Your task to perform on an android device: change the clock display to digital Image 0: 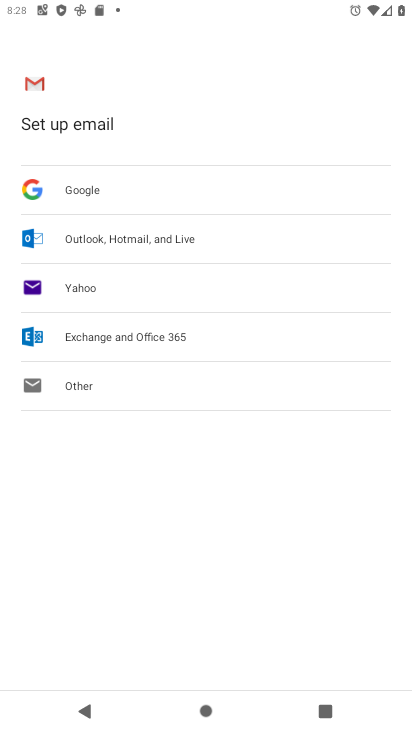
Step 0: press home button
Your task to perform on an android device: change the clock display to digital Image 1: 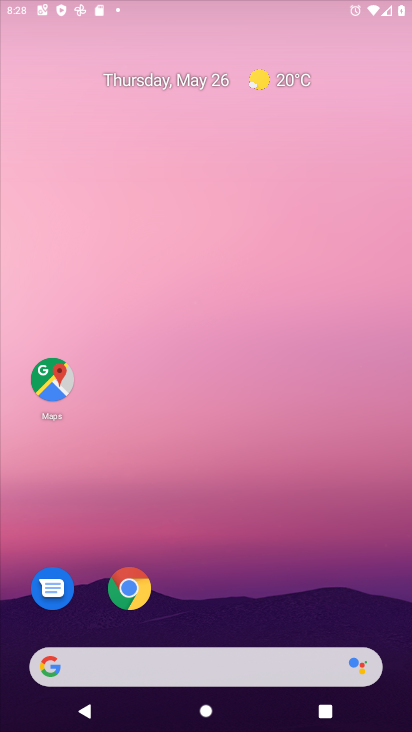
Step 1: drag from (401, 663) to (279, 35)
Your task to perform on an android device: change the clock display to digital Image 2: 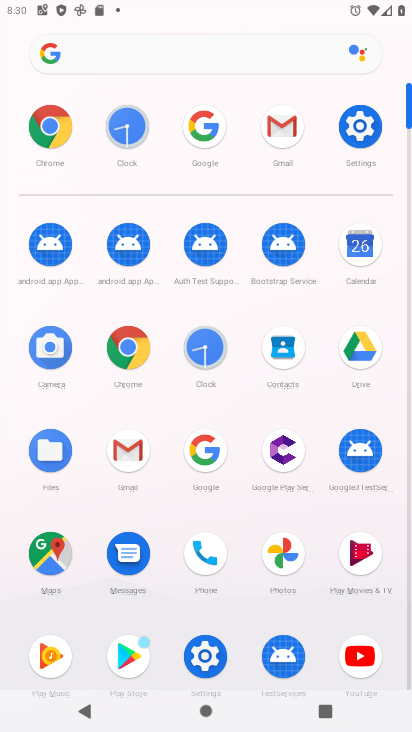
Step 2: click (211, 355)
Your task to perform on an android device: change the clock display to digital Image 3: 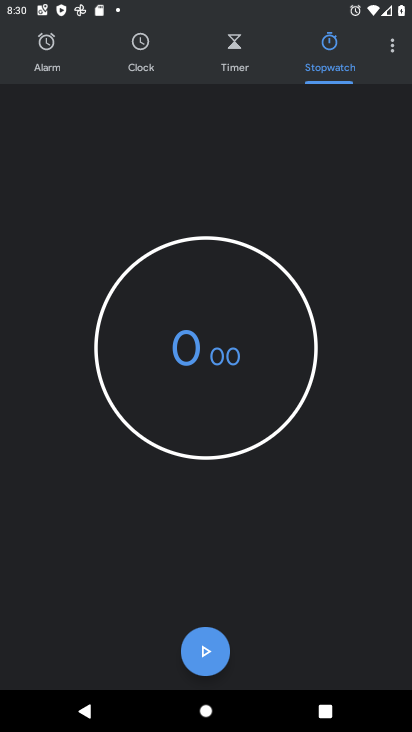
Step 3: click (409, 57)
Your task to perform on an android device: change the clock display to digital Image 4: 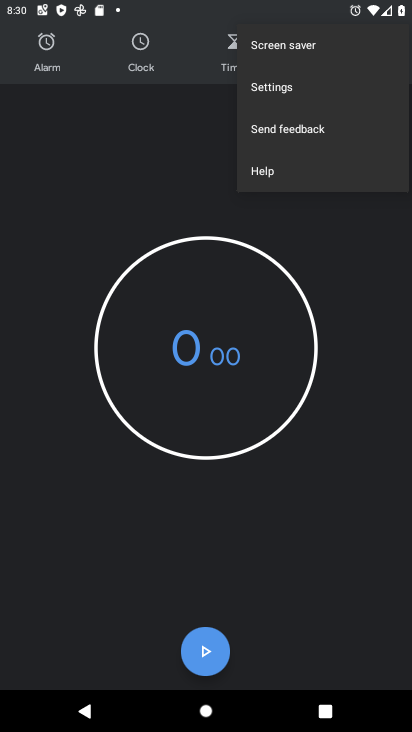
Step 4: click (309, 92)
Your task to perform on an android device: change the clock display to digital Image 5: 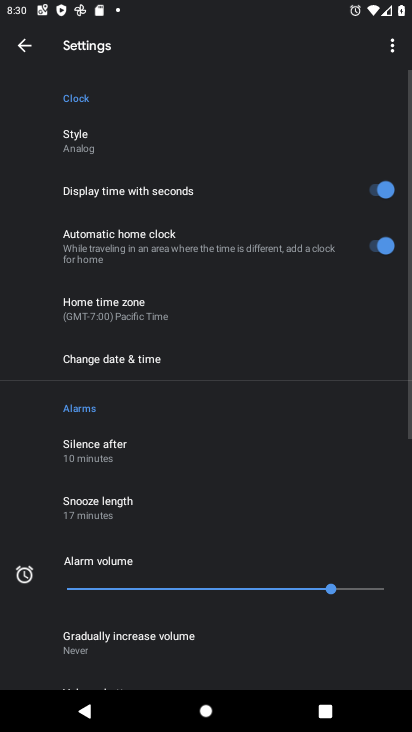
Step 5: click (103, 138)
Your task to perform on an android device: change the clock display to digital Image 6: 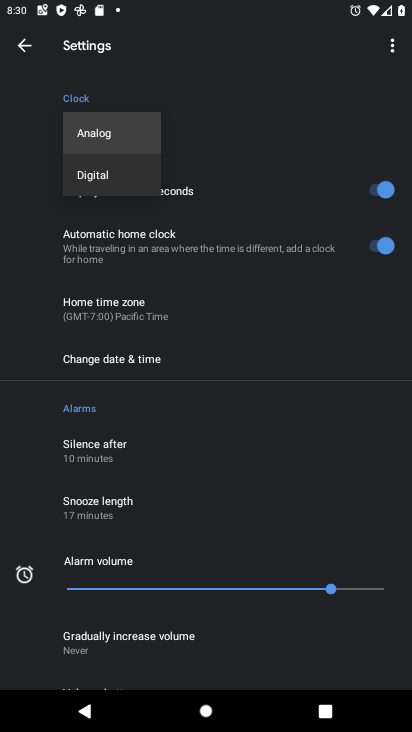
Step 6: click (102, 182)
Your task to perform on an android device: change the clock display to digital Image 7: 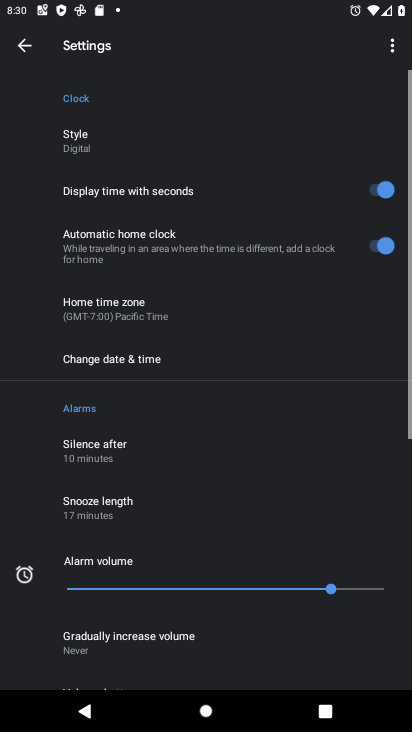
Step 7: task complete